Your task to perform on an android device: What's the latest video from GameXplain? Image 0: 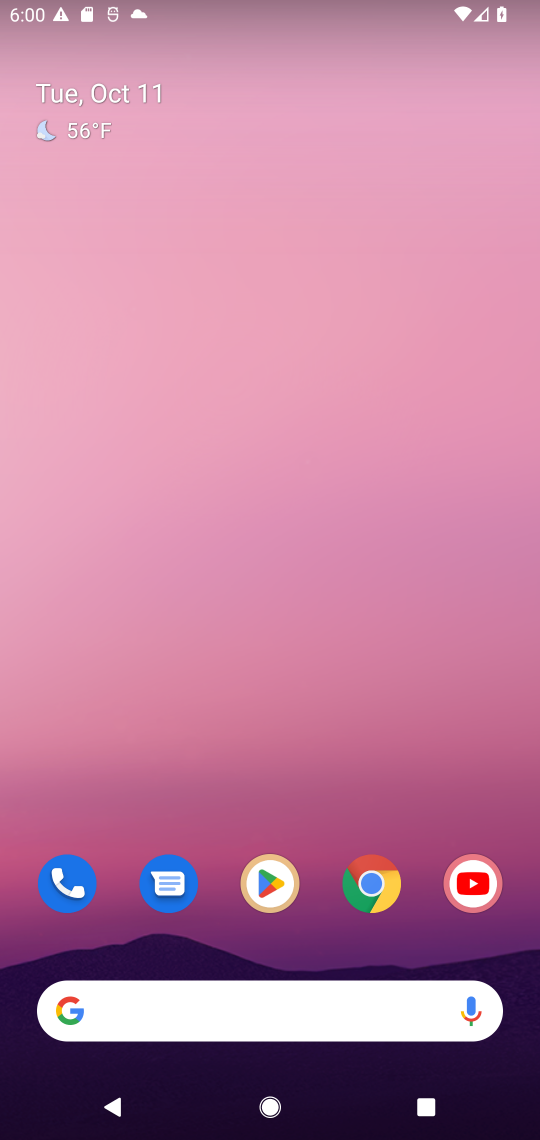
Step 0: drag from (236, 731) to (359, 111)
Your task to perform on an android device: What's the latest video from GameXplain? Image 1: 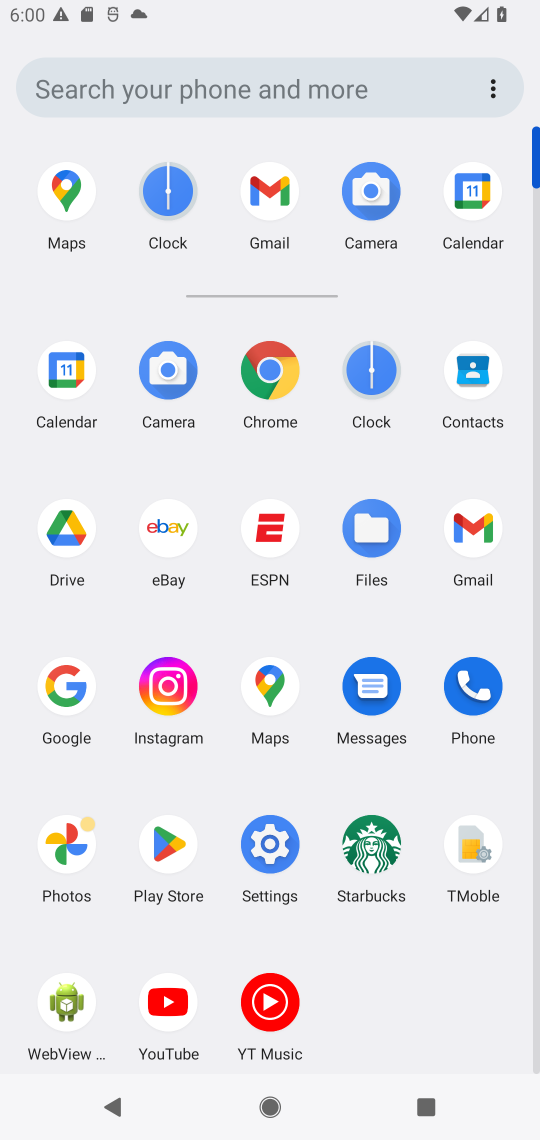
Step 1: click (175, 1008)
Your task to perform on an android device: What's the latest video from GameXplain? Image 2: 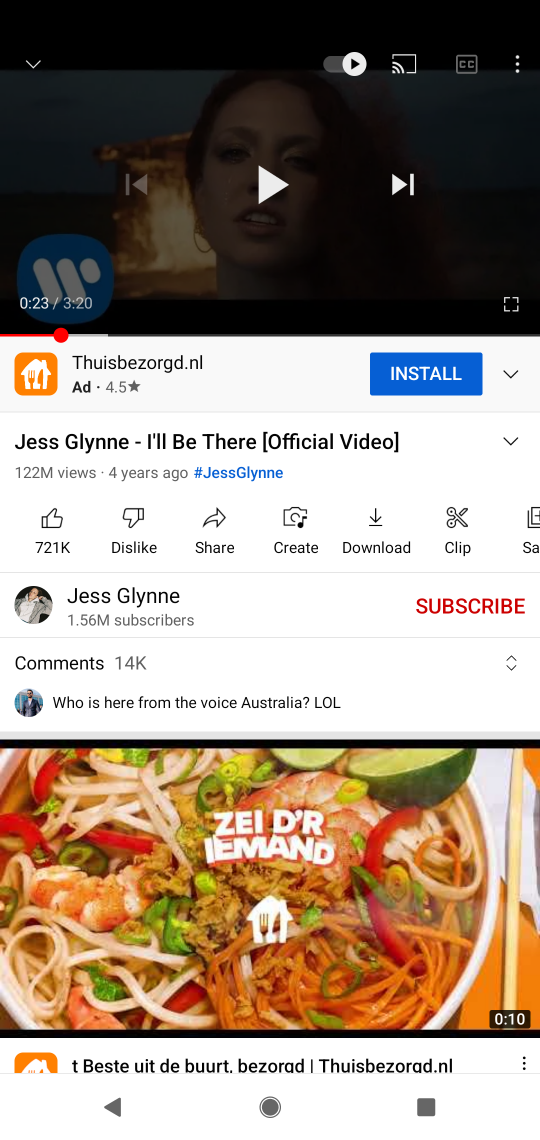
Step 2: drag from (363, 159) to (378, 921)
Your task to perform on an android device: What's the latest video from GameXplain? Image 3: 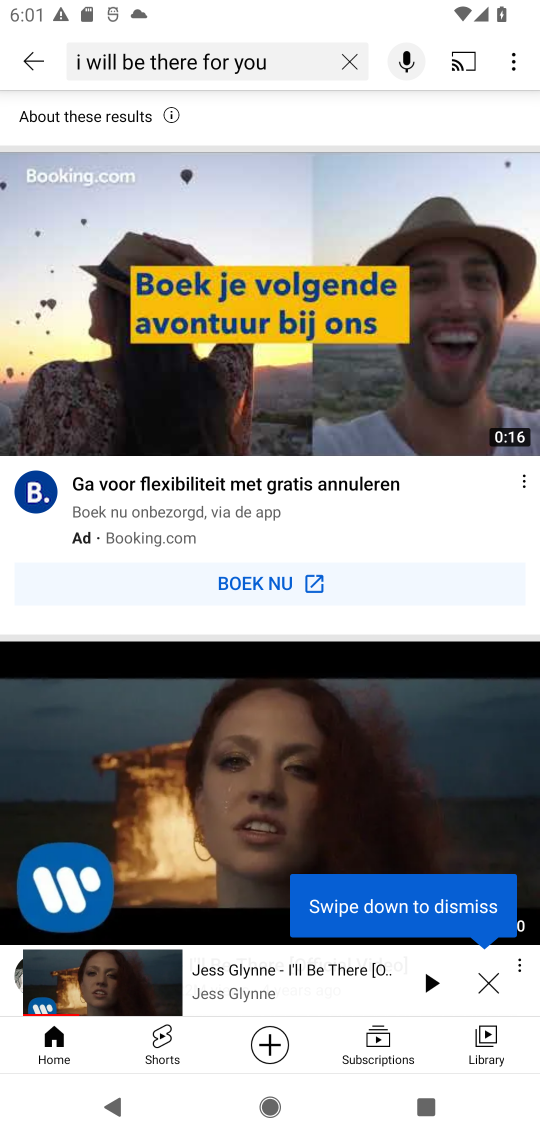
Step 3: click (265, 69)
Your task to perform on an android device: What's the latest video from GameXplain? Image 4: 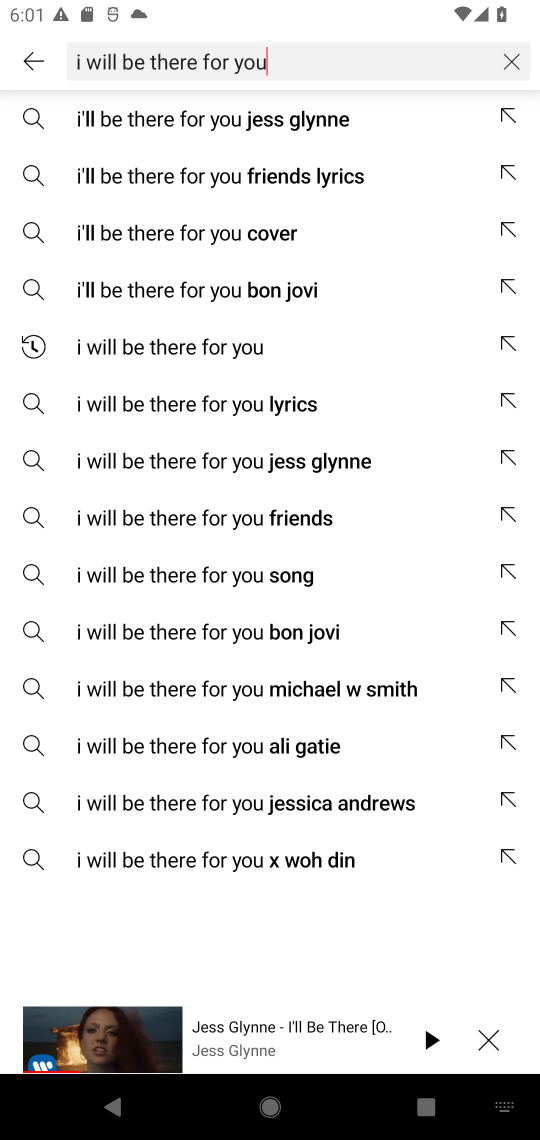
Step 4: click (507, 65)
Your task to perform on an android device: What's the latest video from GameXplain? Image 5: 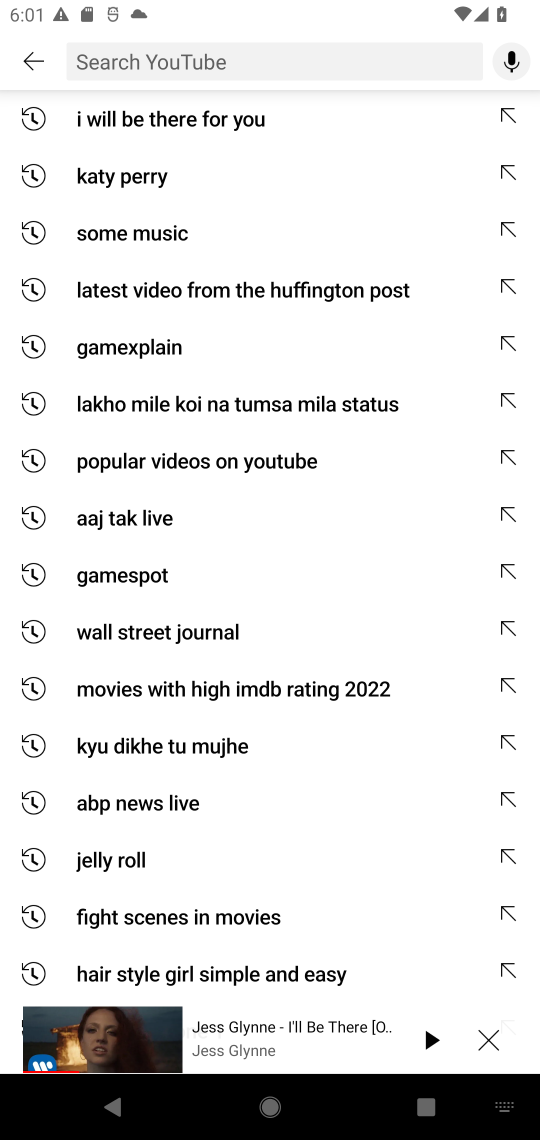
Step 5: type "GameXplain"
Your task to perform on an android device: What's the latest video from GameXplain? Image 6: 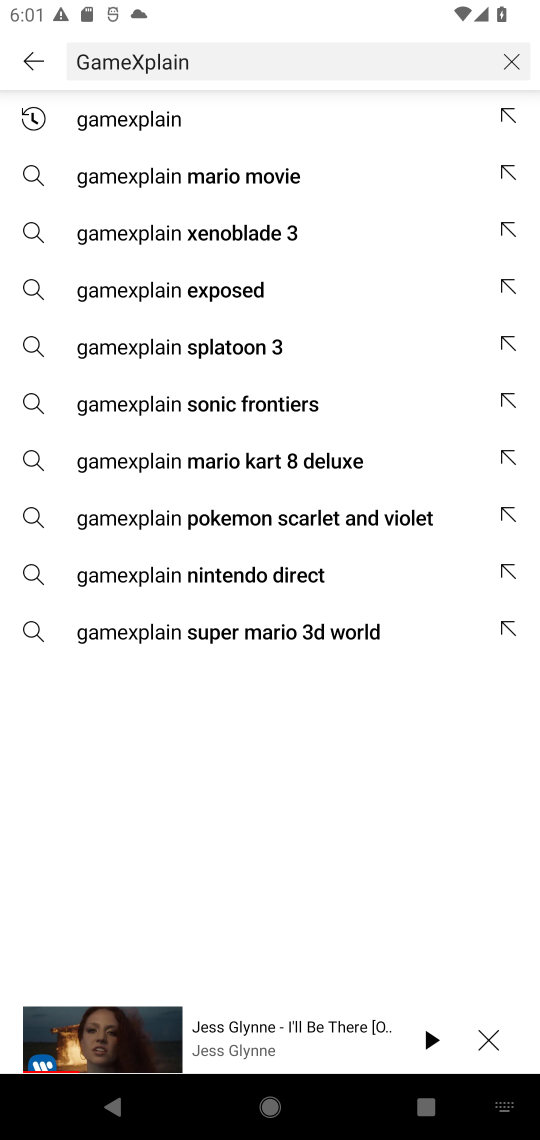
Step 6: press enter
Your task to perform on an android device: What's the latest video from GameXplain? Image 7: 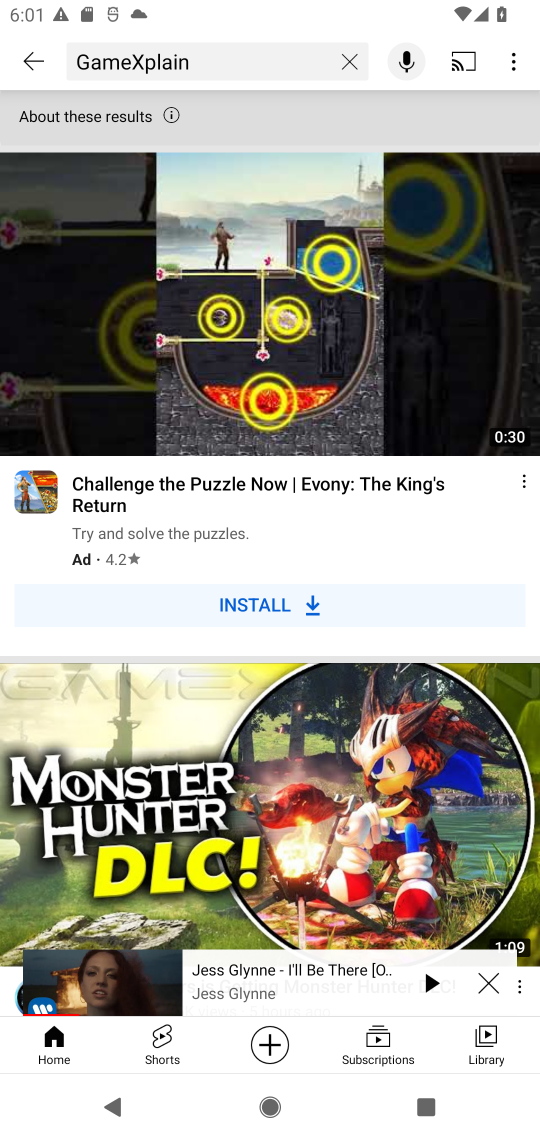
Step 7: drag from (236, 867) to (222, 419)
Your task to perform on an android device: What's the latest video from GameXplain? Image 8: 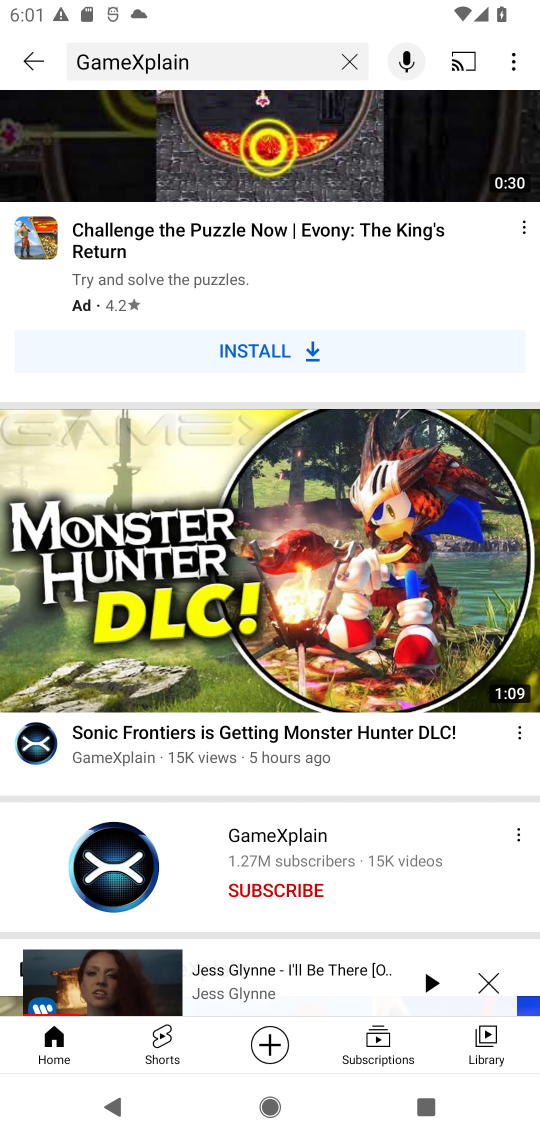
Step 8: click (274, 832)
Your task to perform on an android device: What's the latest video from GameXplain? Image 9: 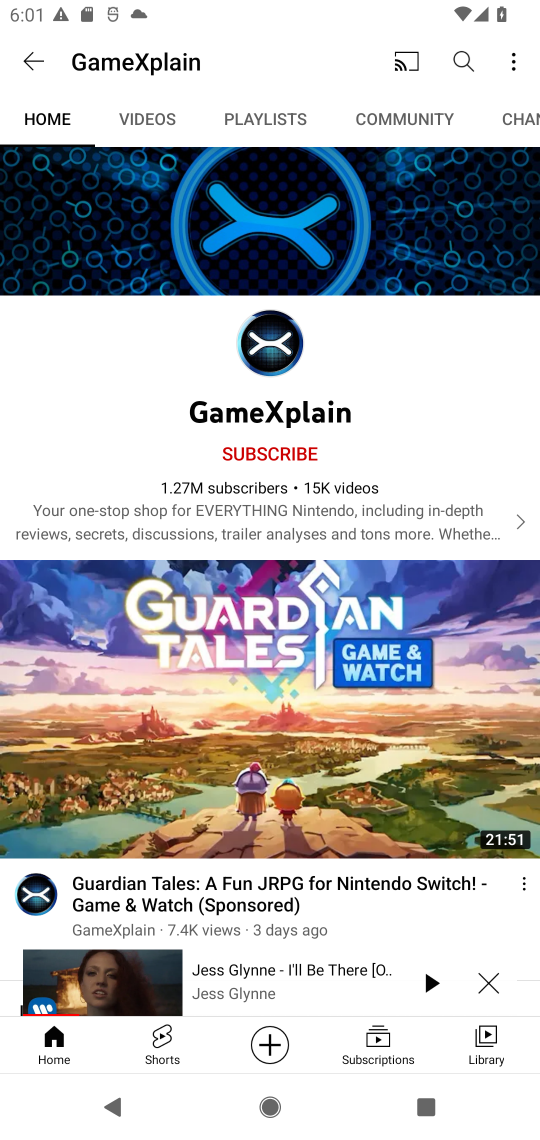
Step 9: click (149, 107)
Your task to perform on an android device: What's the latest video from GameXplain? Image 10: 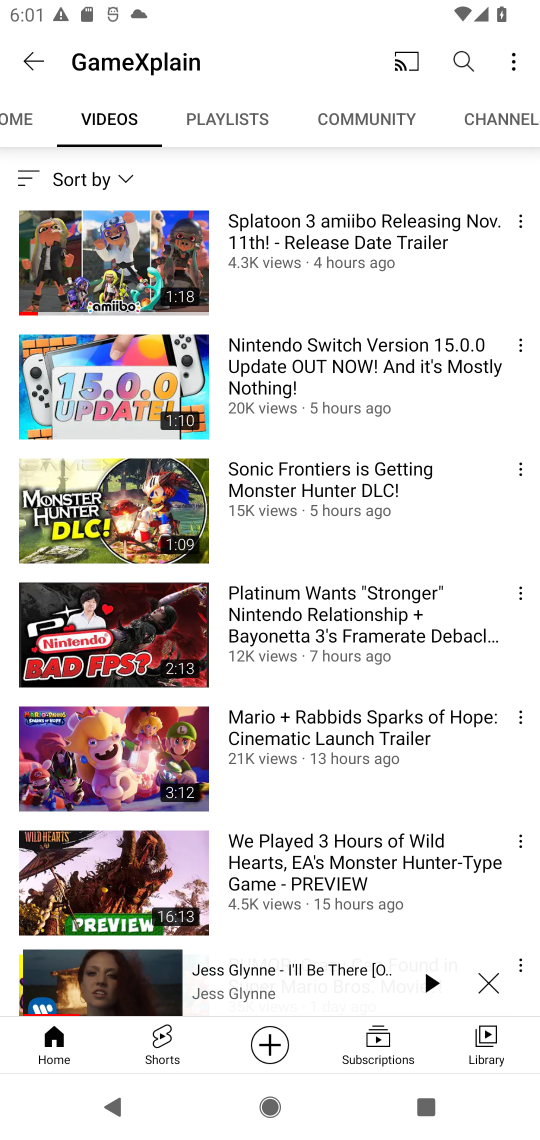
Step 10: click (100, 267)
Your task to perform on an android device: What's the latest video from GameXplain? Image 11: 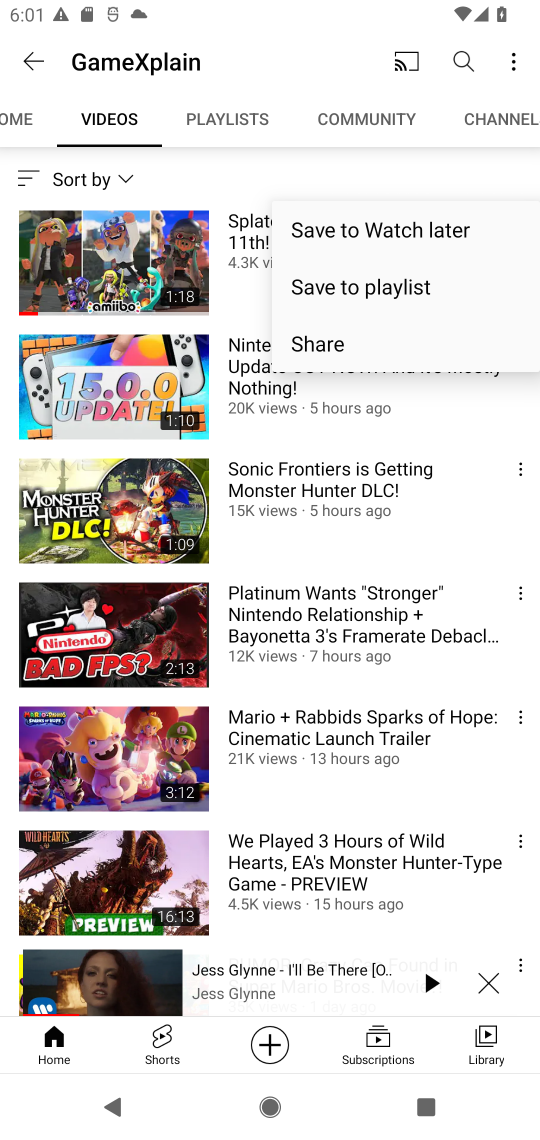
Step 11: click (100, 267)
Your task to perform on an android device: What's the latest video from GameXplain? Image 12: 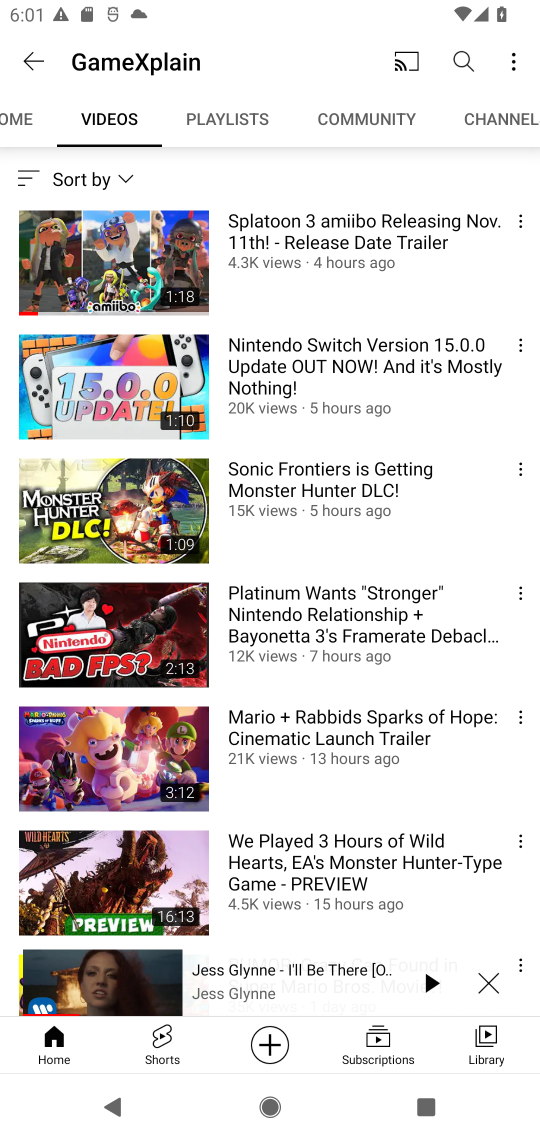
Step 12: click (100, 267)
Your task to perform on an android device: What's the latest video from GameXplain? Image 13: 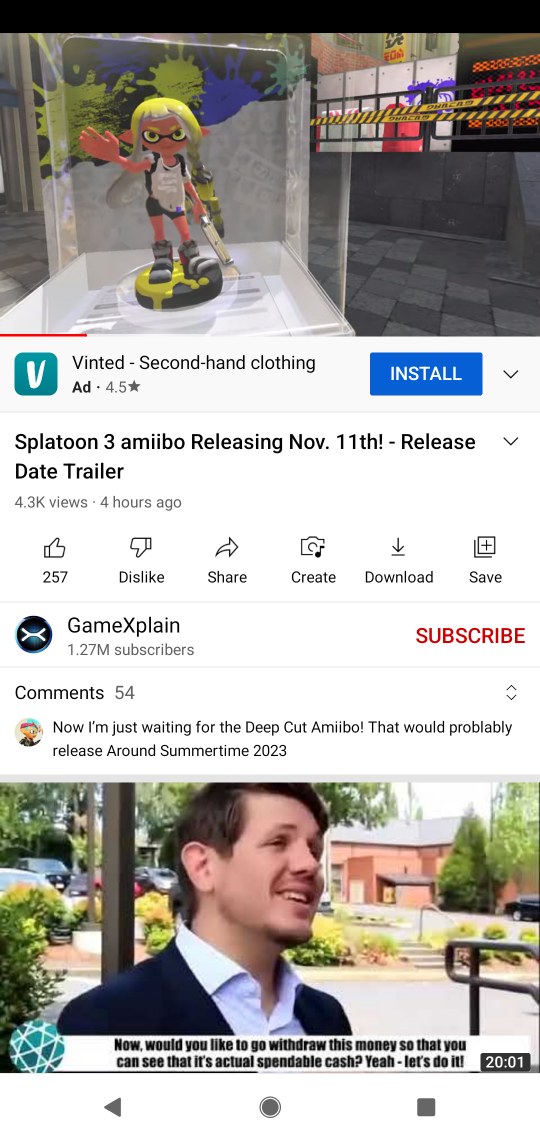
Step 13: task complete